Your task to perform on an android device: read, delete, or share a saved page in the chrome app Image 0: 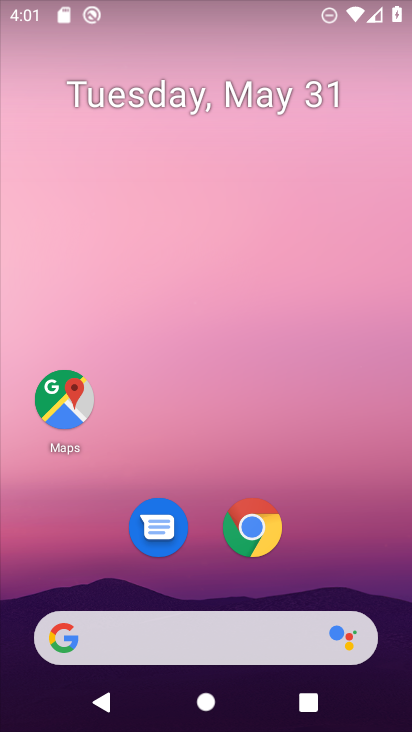
Step 0: click (265, 535)
Your task to perform on an android device: read, delete, or share a saved page in the chrome app Image 1: 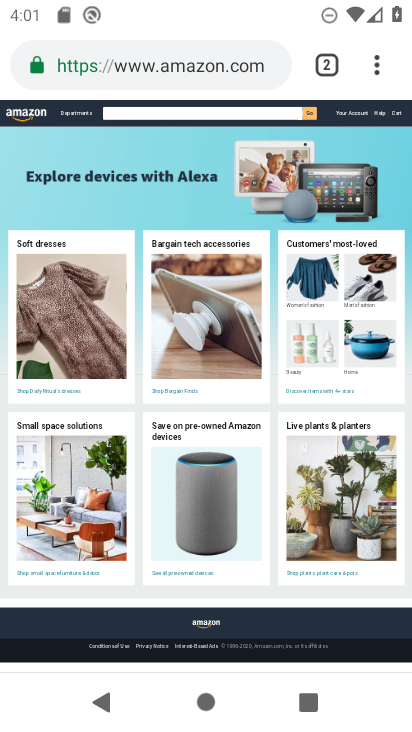
Step 1: click (372, 65)
Your task to perform on an android device: read, delete, or share a saved page in the chrome app Image 2: 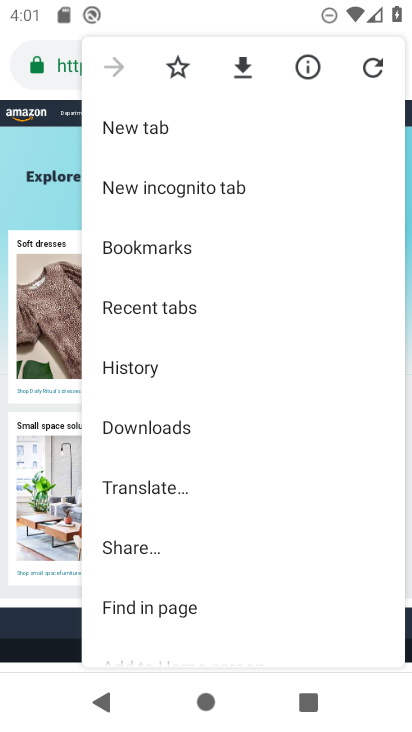
Step 2: click (153, 438)
Your task to perform on an android device: read, delete, or share a saved page in the chrome app Image 3: 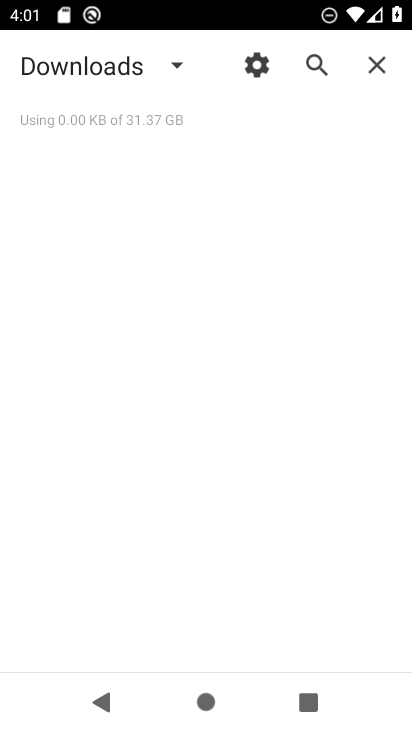
Step 3: task complete